Your task to perform on an android device: Open settings Image 0: 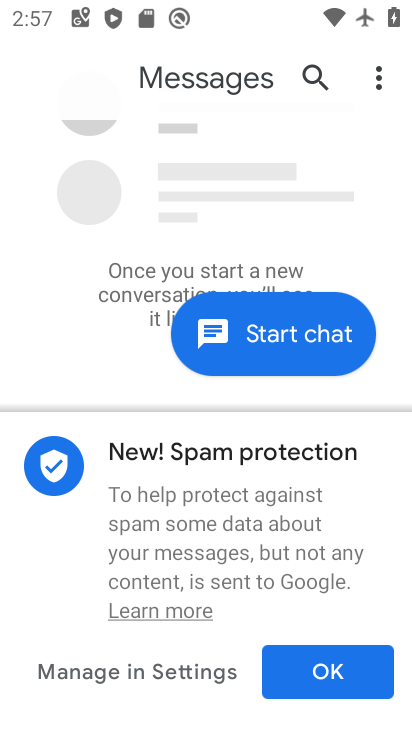
Step 0: press home button
Your task to perform on an android device: Open settings Image 1: 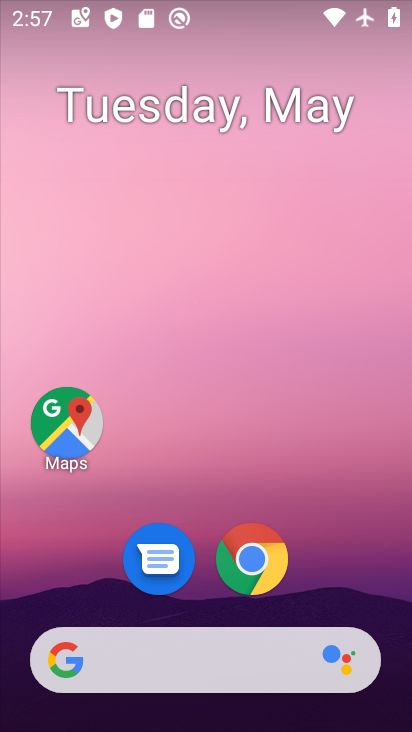
Step 1: drag from (180, 671) to (272, 149)
Your task to perform on an android device: Open settings Image 2: 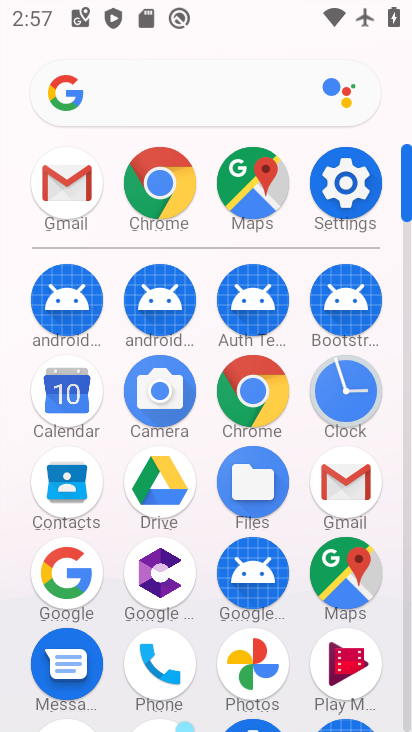
Step 2: click (347, 194)
Your task to perform on an android device: Open settings Image 3: 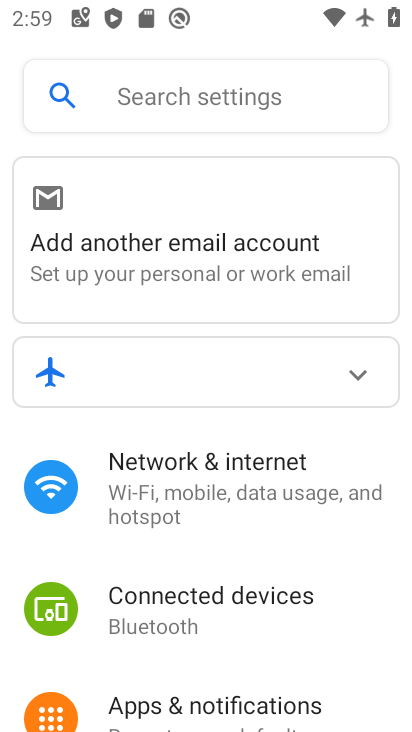
Step 3: task complete